Your task to perform on an android device: snooze an email in the gmail app Image 0: 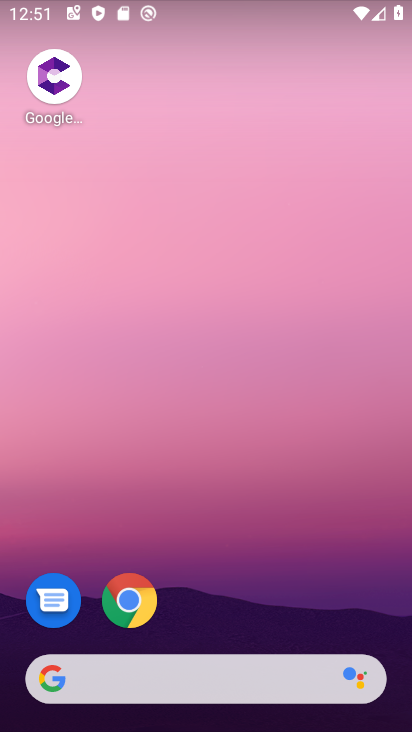
Step 0: drag from (270, 597) to (239, 261)
Your task to perform on an android device: snooze an email in the gmail app Image 1: 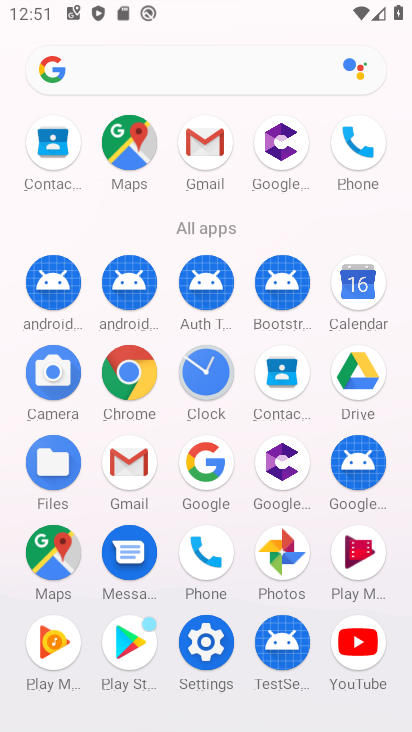
Step 1: click (141, 470)
Your task to perform on an android device: snooze an email in the gmail app Image 2: 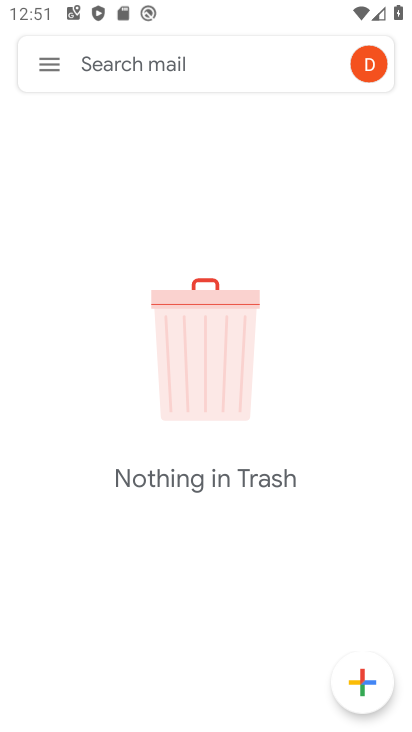
Step 2: click (52, 69)
Your task to perform on an android device: snooze an email in the gmail app Image 3: 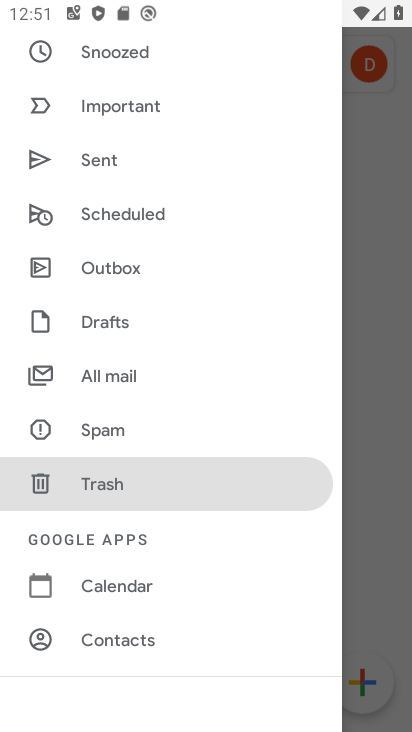
Step 3: drag from (147, 146) to (161, 337)
Your task to perform on an android device: snooze an email in the gmail app Image 4: 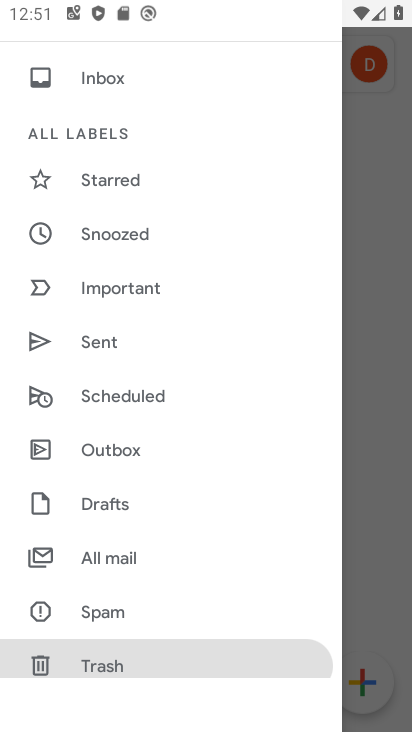
Step 4: click (150, 83)
Your task to perform on an android device: snooze an email in the gmail app Image 5: 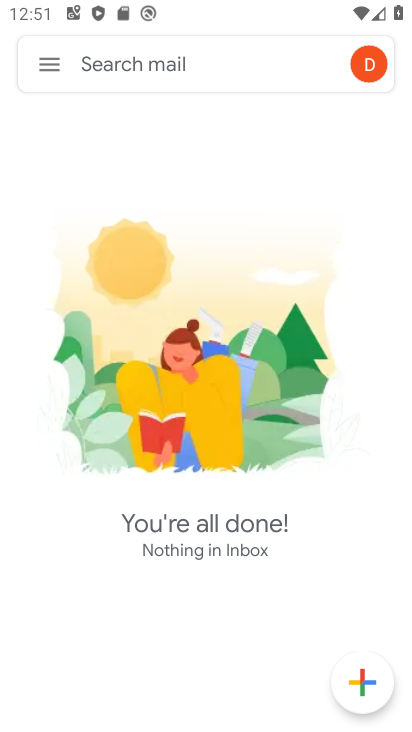
Step 5: task complete